Your task to perform on an android device: toggle data saver in the chrome app Image 0: 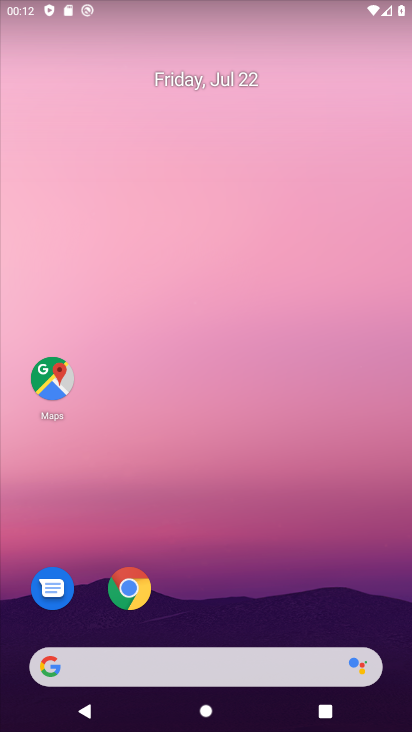
Step 0: click (135, 585)
Your task to perform on an android device: toggle data saver in the chrome app Image 1: 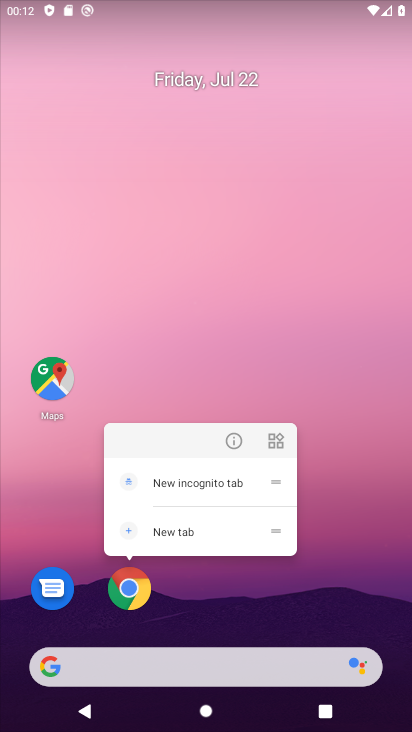
Step 1: click (137, 583)
Your task to perform on an android device: toggle data saver in the chrome app Image 2: 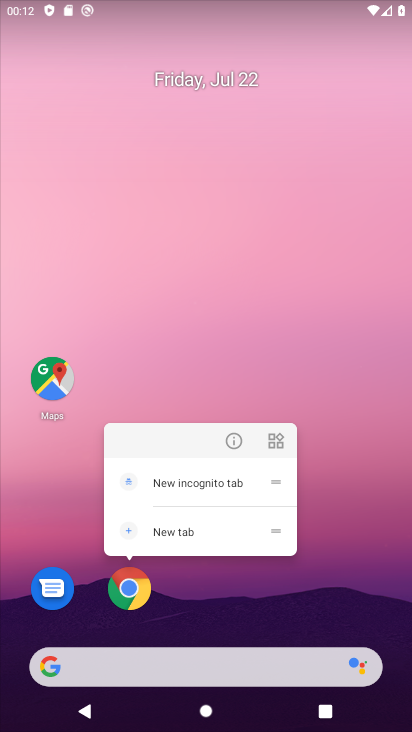
Step 2: click (137, 583)
Your task to perform on an android device: toggle data saver in the chrome app Image 3: 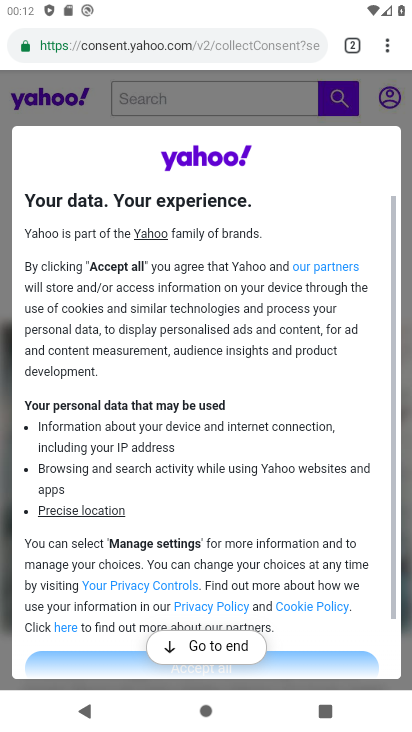
Step 3: click (388, 45)
Your task to perform on an android device: toggle data saver in the chrome app Image 4: 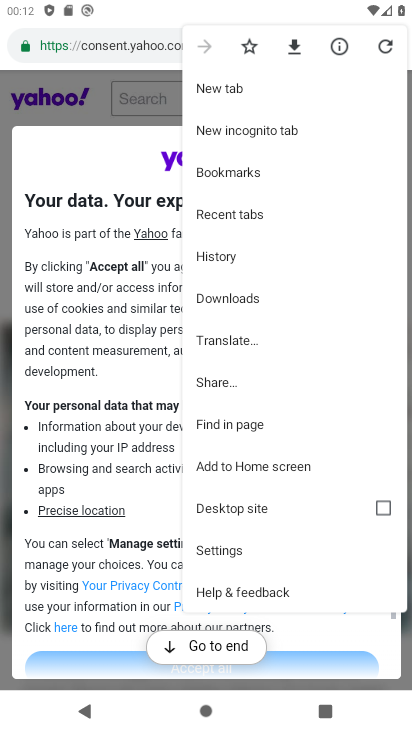
Step 4: click (222, 551)
Your task to perform on an android device: toggle data saver in the chrome app Image 5: 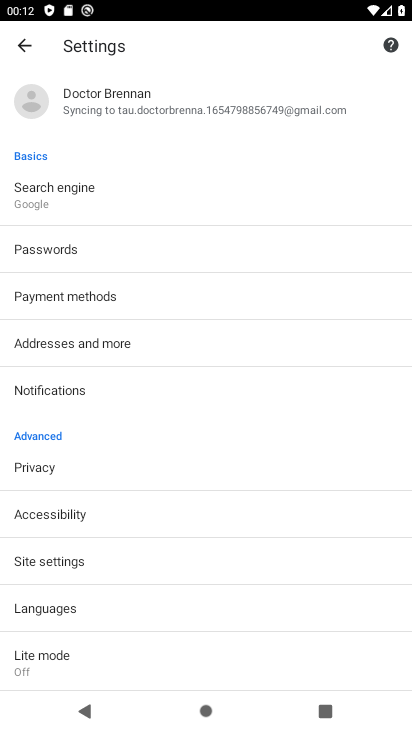
Step 5: click (43, 658)
Your task to perform on an android device: toggle data saver in the chrome app Image 6: 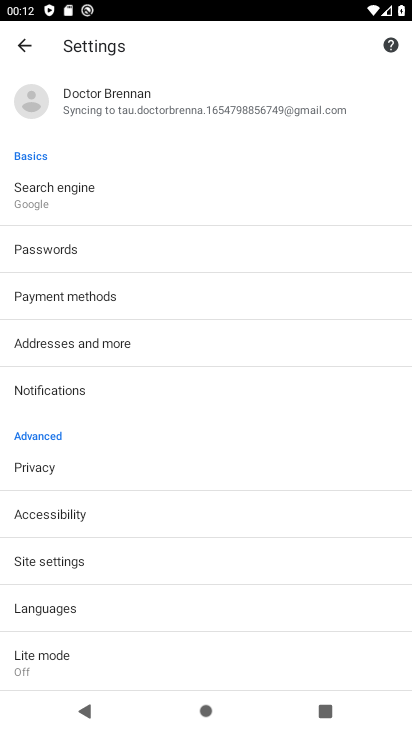
Step 6: click (51, 662)
Your task to perform on an android device: toggle data saver in the chrome app Image 7: 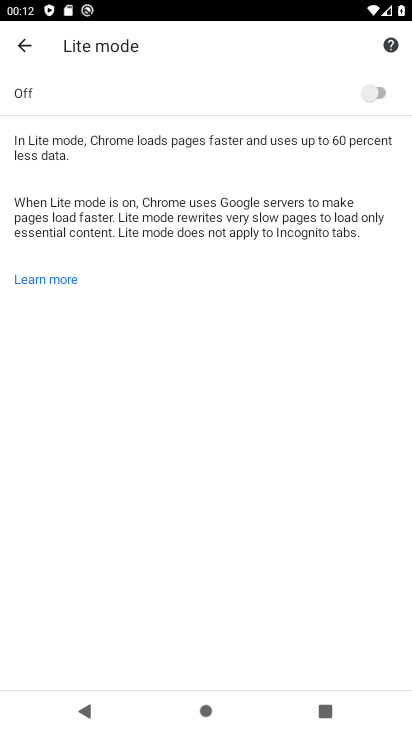
Step 7: click (366, 91)
Your task to perform on an android device: toggle data saver in the chrome app Image 8: 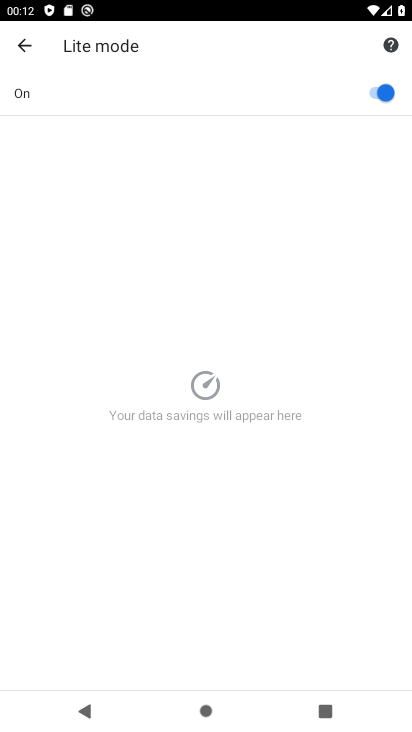
Step 8: task complete